Your task to perform on an android device: move an email to a new category in the gmail app Image 0: 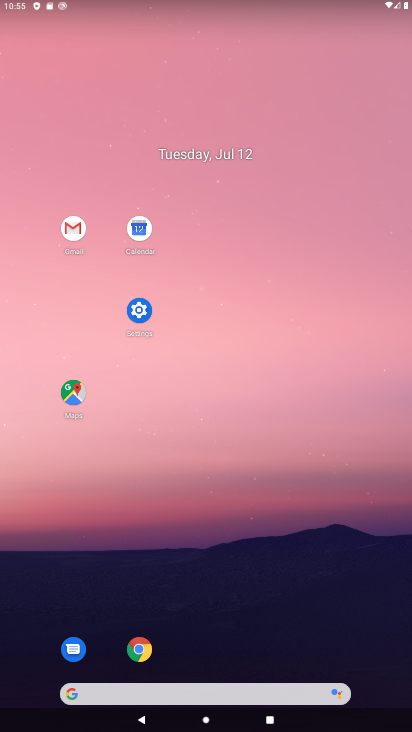
Step 0: click (79, 219)
Your task to perform on an android device: move an email to a new category in the gmail app Image 1: 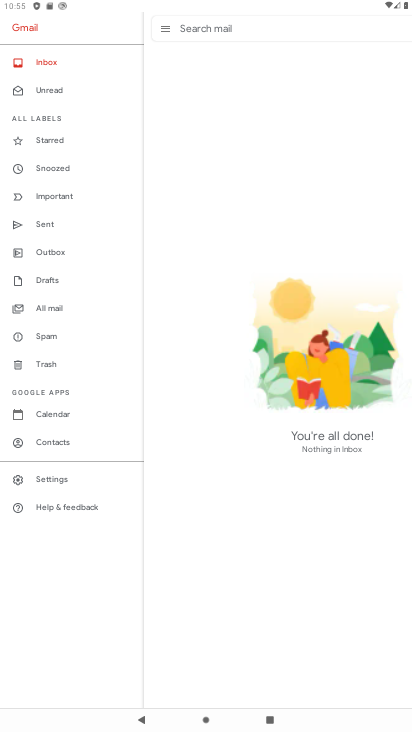
Step 1: click (79, 309)
Your task to perform on an android device: move an email to a new category in the gmail app Image 2: 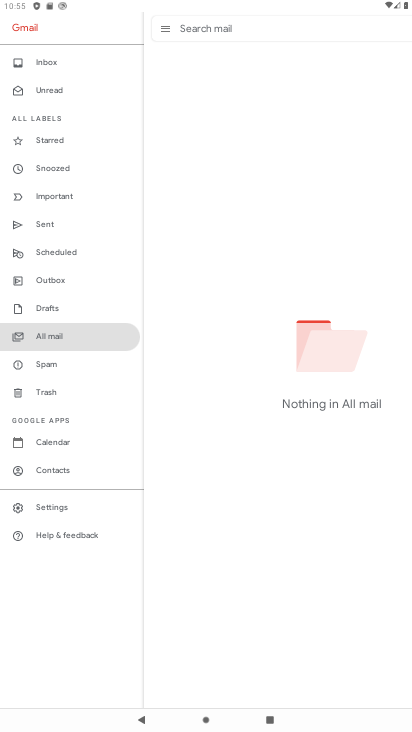
Step 2: task complete